Your task to perform on an android device: Open Google Image 0: 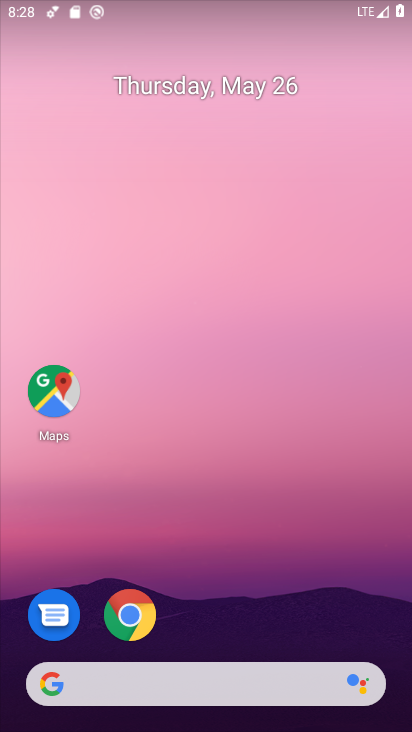
Step 0: drag from (191, 568) to (207, 251)
Your task to perform on an android device: Open Google Image 1: 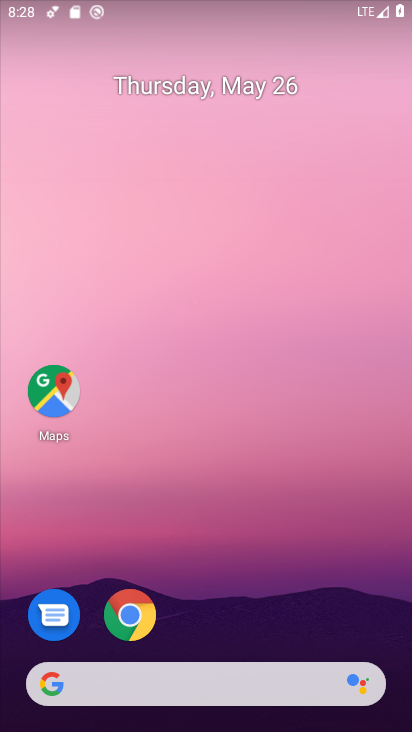
Step 1: drag from (246, 601) to (265, 186)
Your task to perform on an android device: Open Google Image 2: 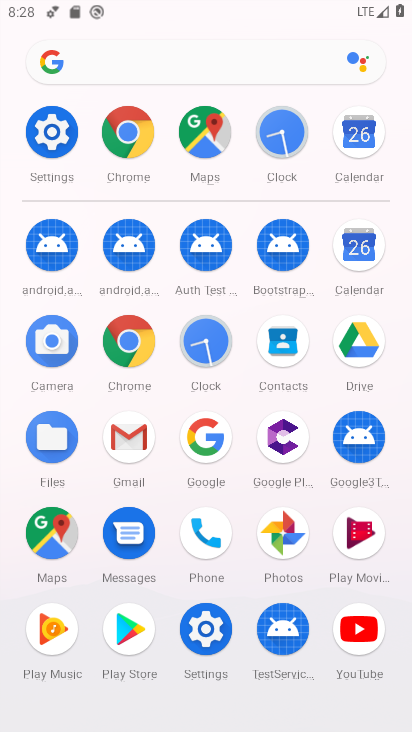
Step 2: click (213, 437)
Your task to perform on an android device: Open Google Image 3: 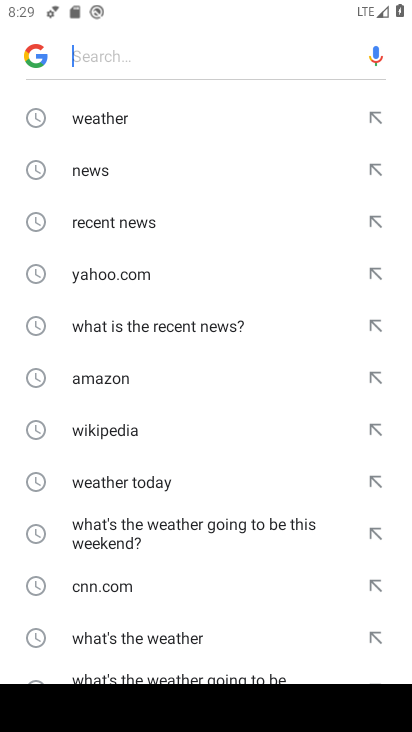
Step 3: task complete